Your task to perform on an android device: Go to Yahoo.com Image 0: 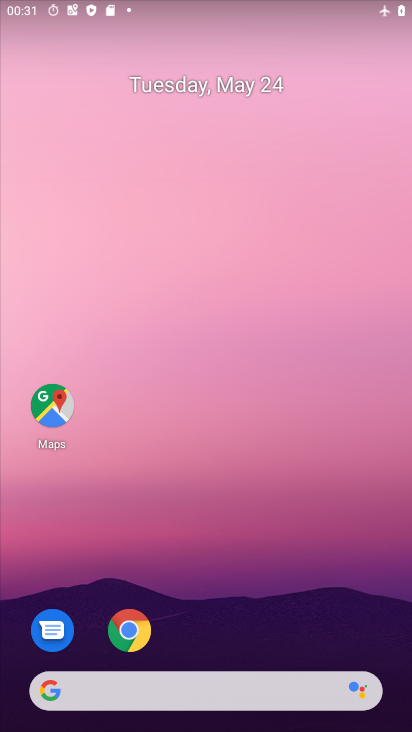
Step 0: click (133, 627)
Your task to perform on an android device: Go to Yahoo.com Image 1: 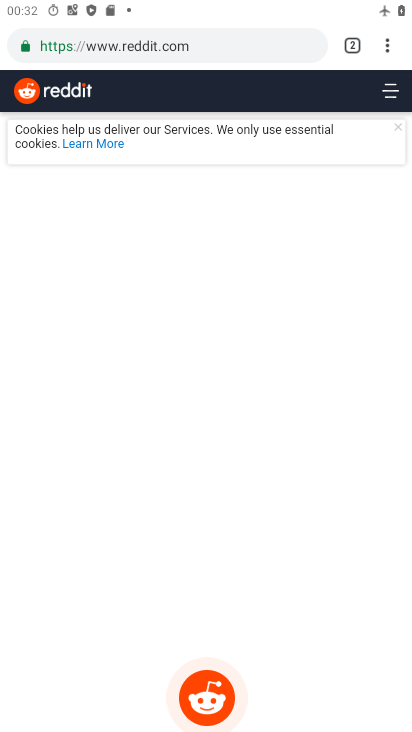
Step 1: click (114, 46)
Your task to perform on an android device: Go to Yahoo.com Image 2: 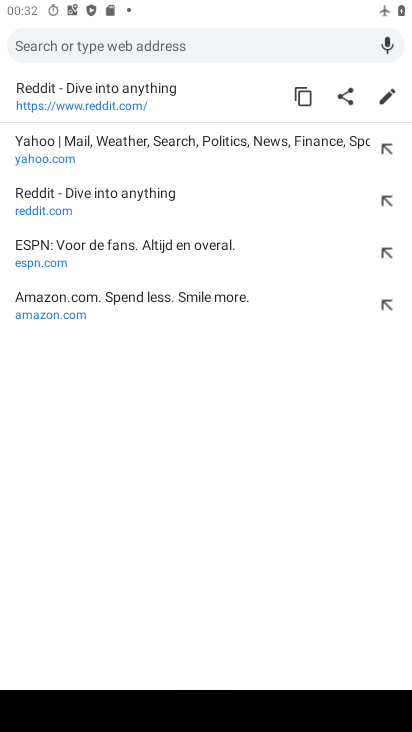
Step 2: click (43, 154)
Your task to perform on an android device: Go to Yahoo.com Image 3: 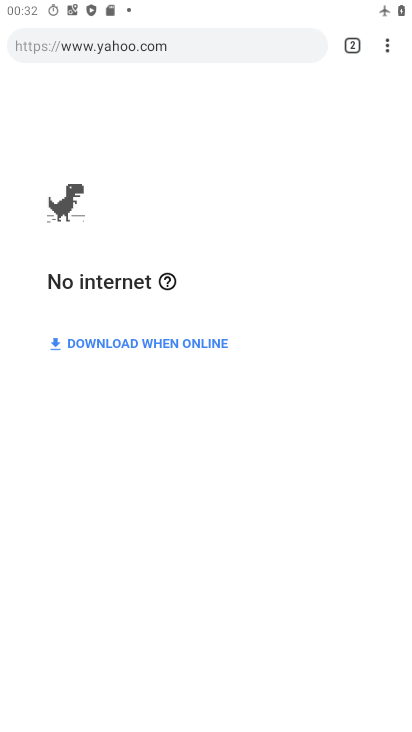
Step 3: task complete